Your task to perform on an android device: check android version Image 0: 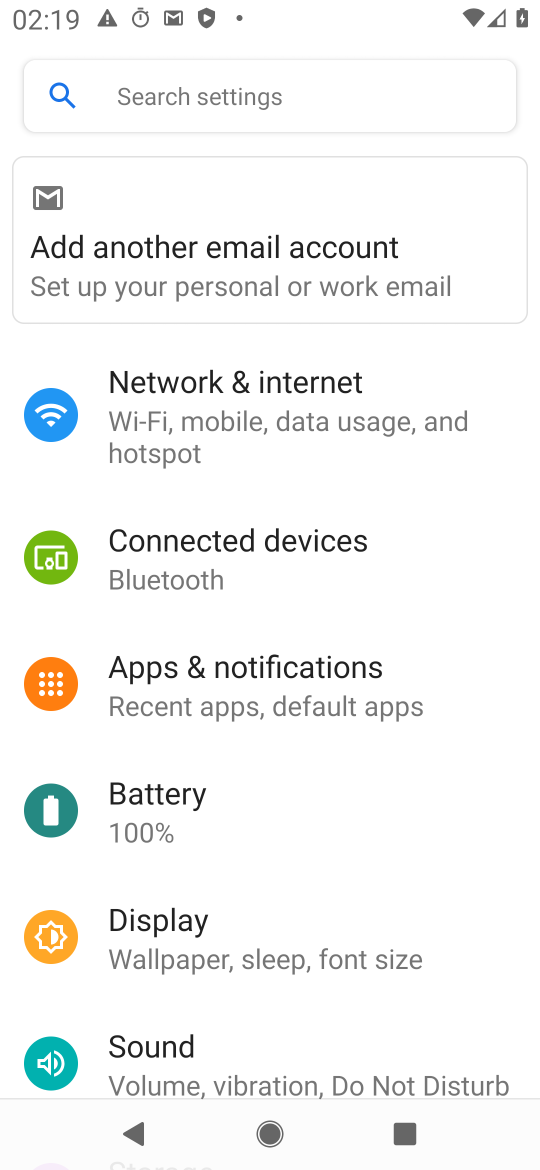
Step 0: drag from (461, 836) to (460, 292)
Your task to perform on an android device: check android version Image 1: 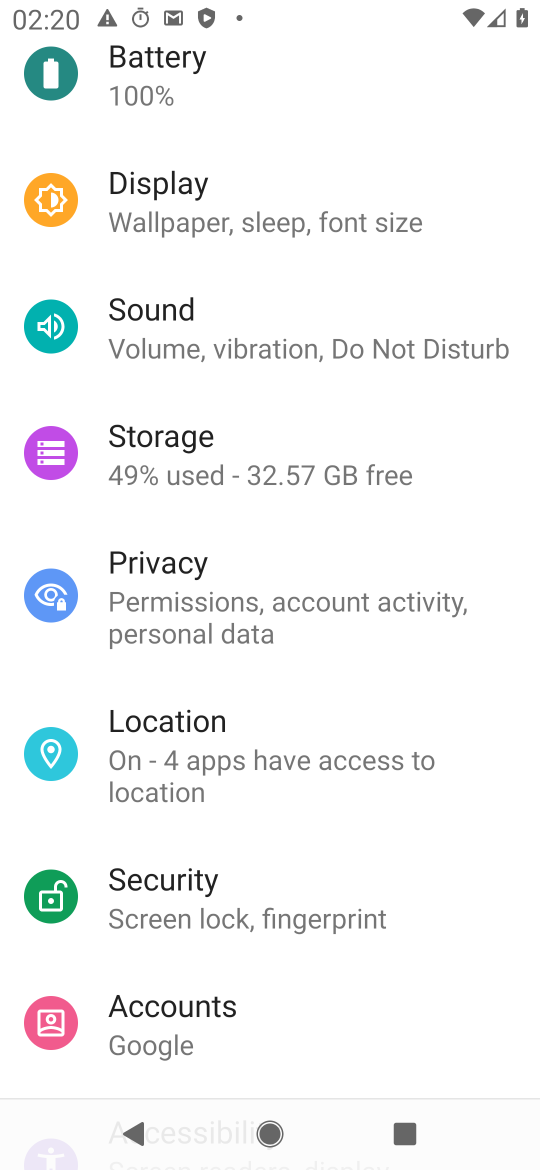
Step 1: drag from (473, 1018) to (500, 296)
Your task to perform on an android device: check android version Image 2: 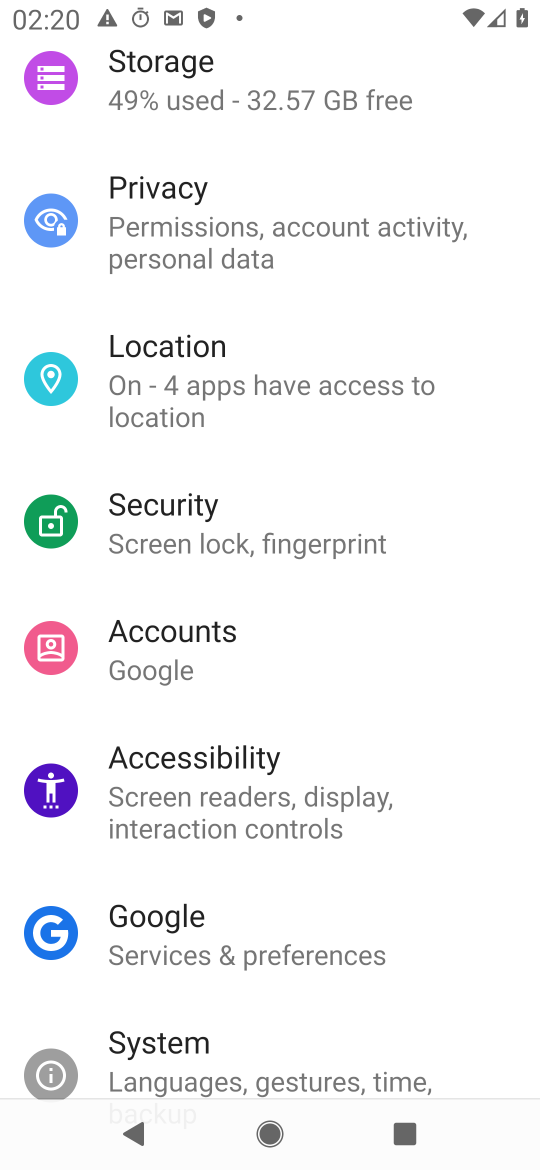
Step 2: drag from (462, 981) to (463, 258)
Your task to perform on an android device: check android version Image 3: 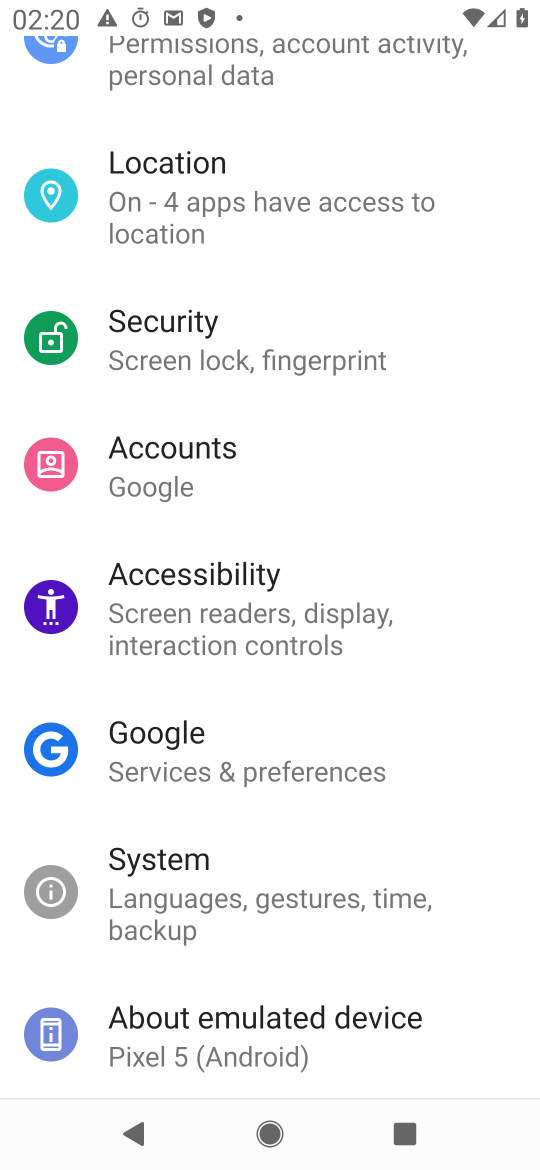
Step 3: click (282, 1037)
Your task to perform on an android device: check android version Image 4: 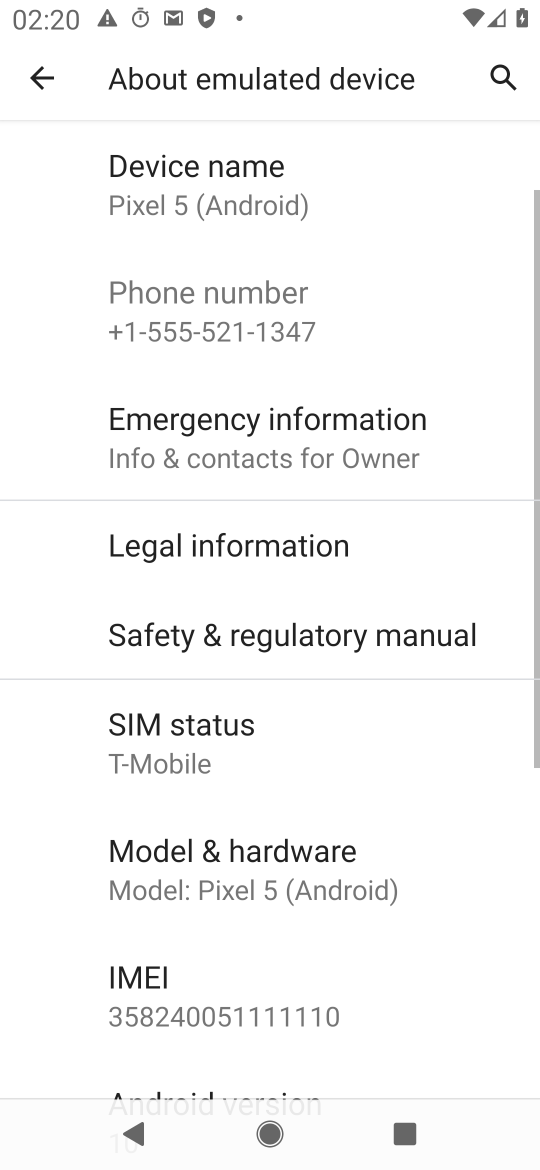
Step 4: click (192, 1085)
Your task to perform on an android device: check android version Image 5: 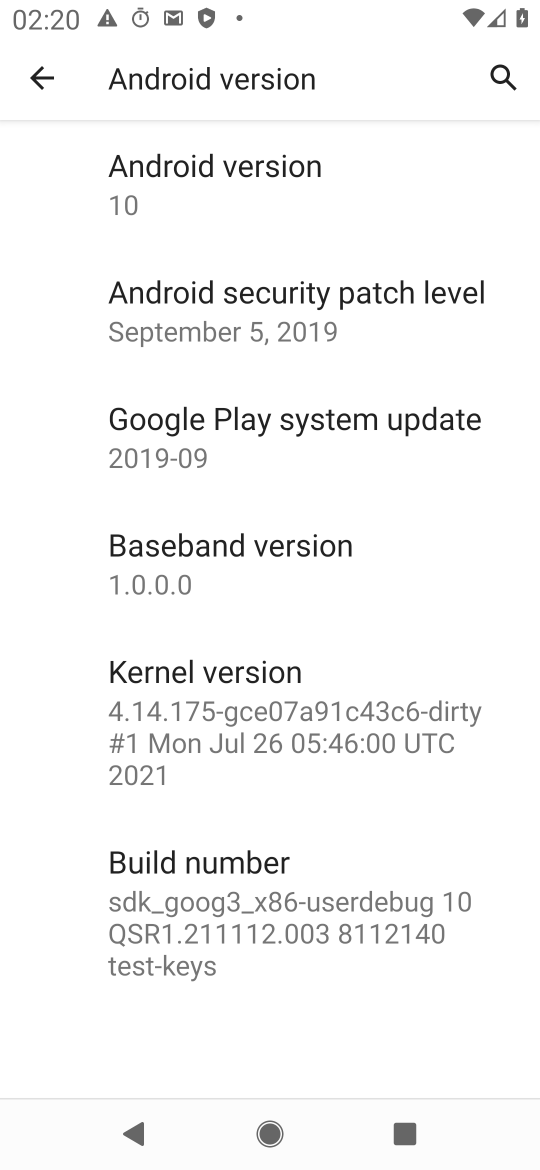
Step 5: task complete